Your task to perform on an android device: Open Yahoo.com Image 0: 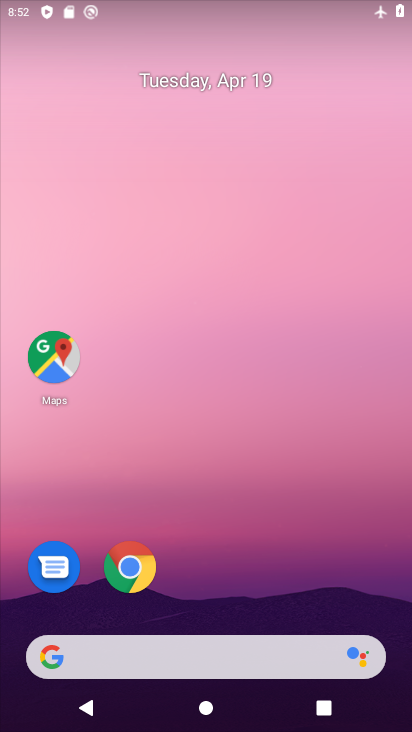
Step 0: click (134, 568)
Your task to perform on an android device: Open Yahoo.com Image 1: 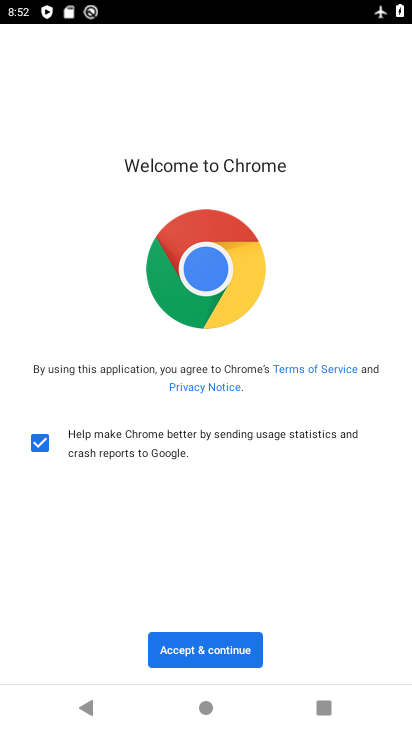
Step 1: click (217, 650)
Your task to perform on an android device: Open Yahoo.com Image 2: 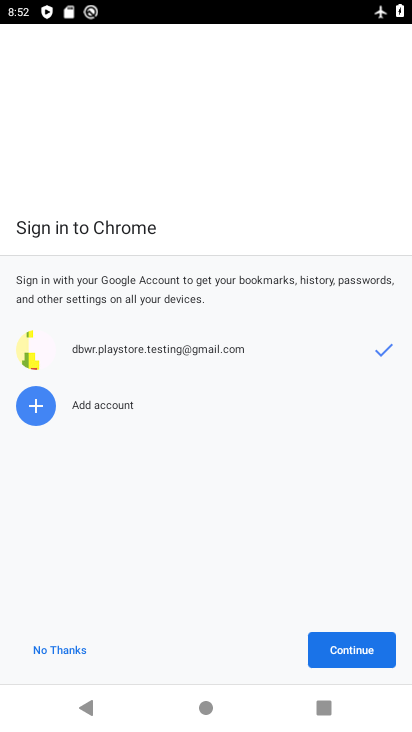
Step 2: click (343, 658)
Your task to perform on an android device: Open Yahoo.com Image 3: 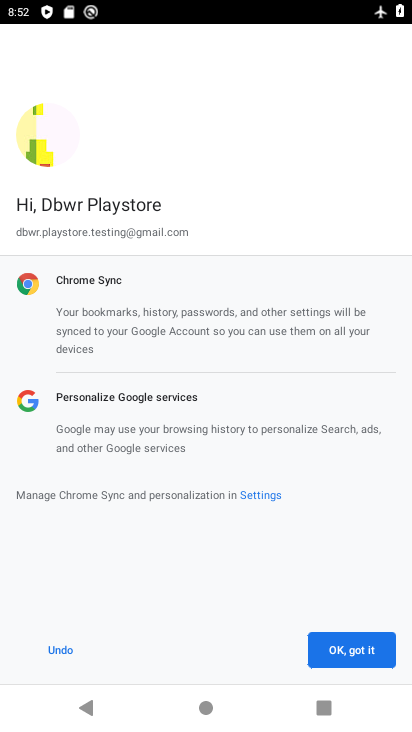
Step 3: click (355, 650)
Your task to perform on an android device: Open Yahoo.com Image 4: 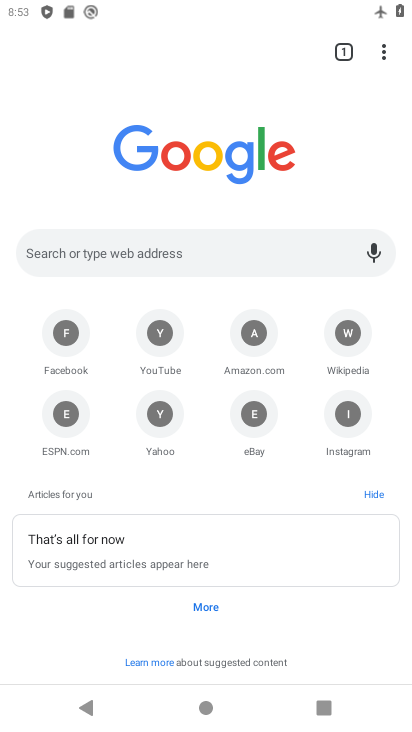
Step 4: click (153, 422)
Your task to perform on an android device: Open Yahoo.com Image 5: 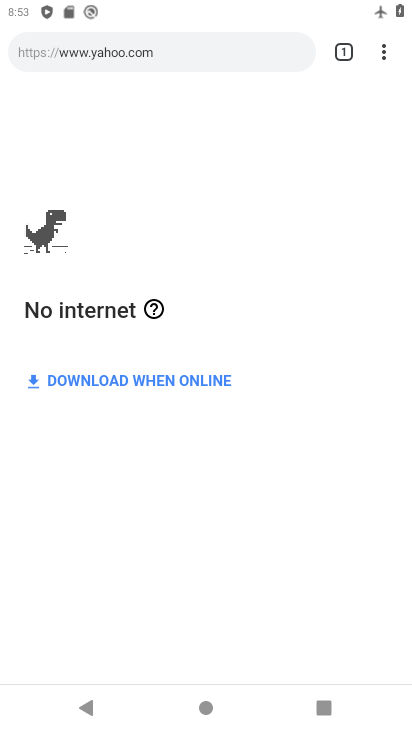
Step 5: task complete